Your task to perform on an android device: allow cookies in the chrome app Image 0: 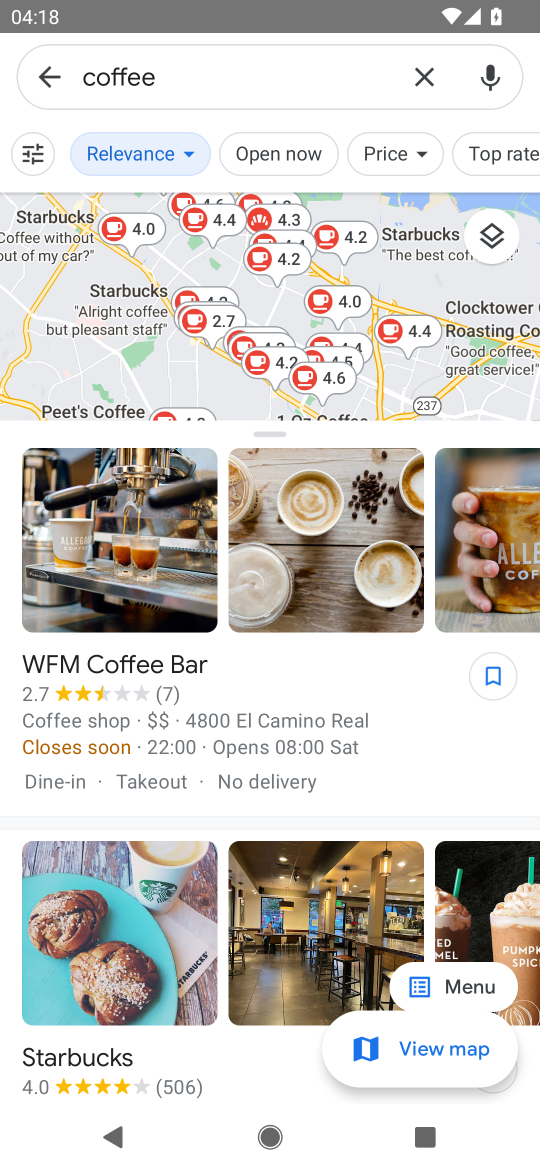
Step 0: press back button
Your task to perform on an android device: allow cookies in the chrome app Image 1: 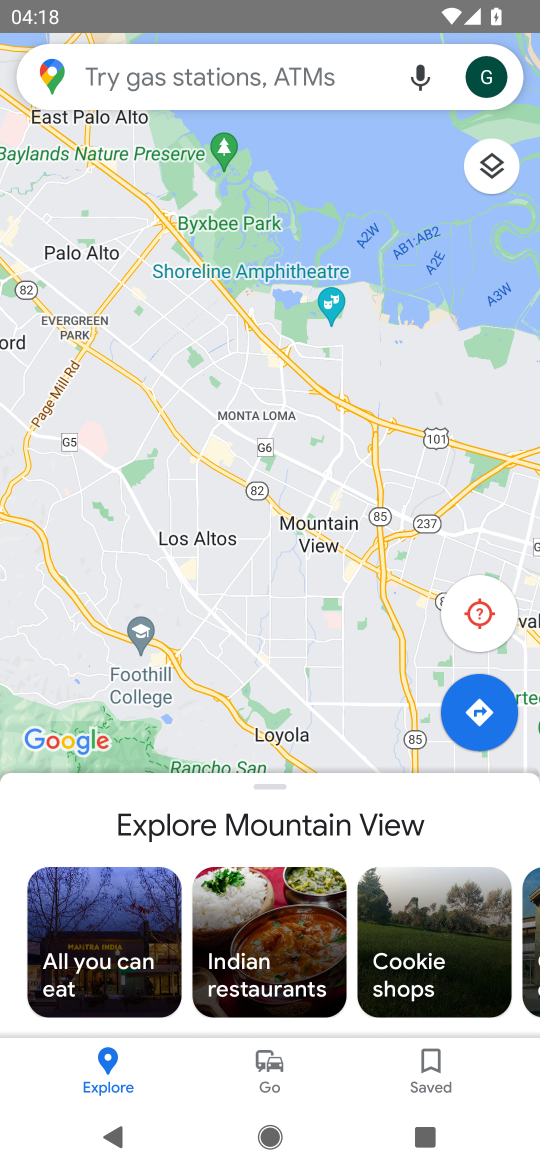
Step 1: press back button
Your task to perform on an android device: allow cookies in the chrome app Image 2: 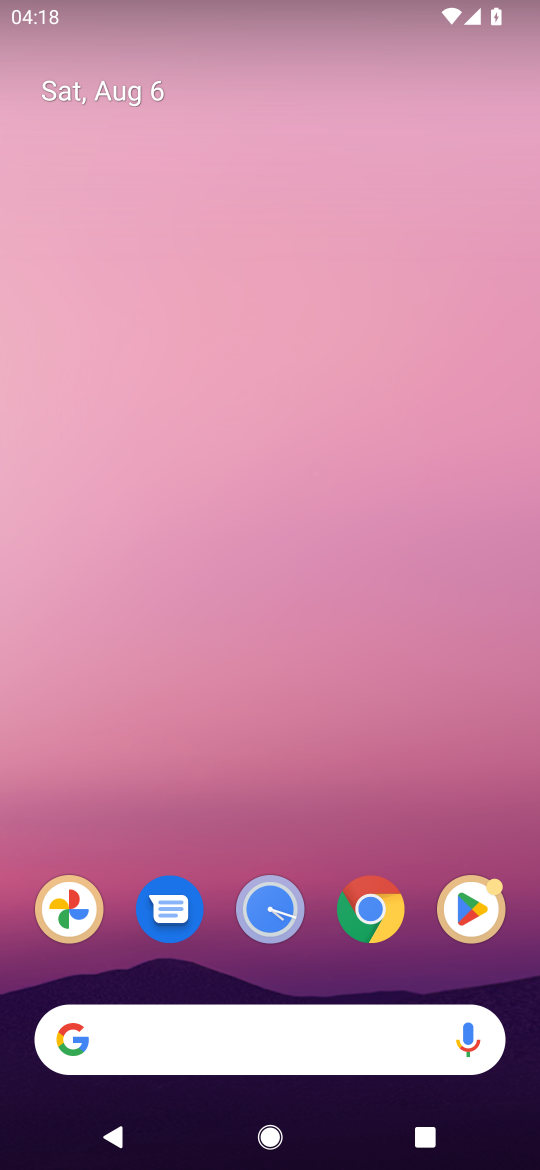
Step 2: click (369, 893)
Your task to perform on an android device: allow cookies in the chrome app Image 3: 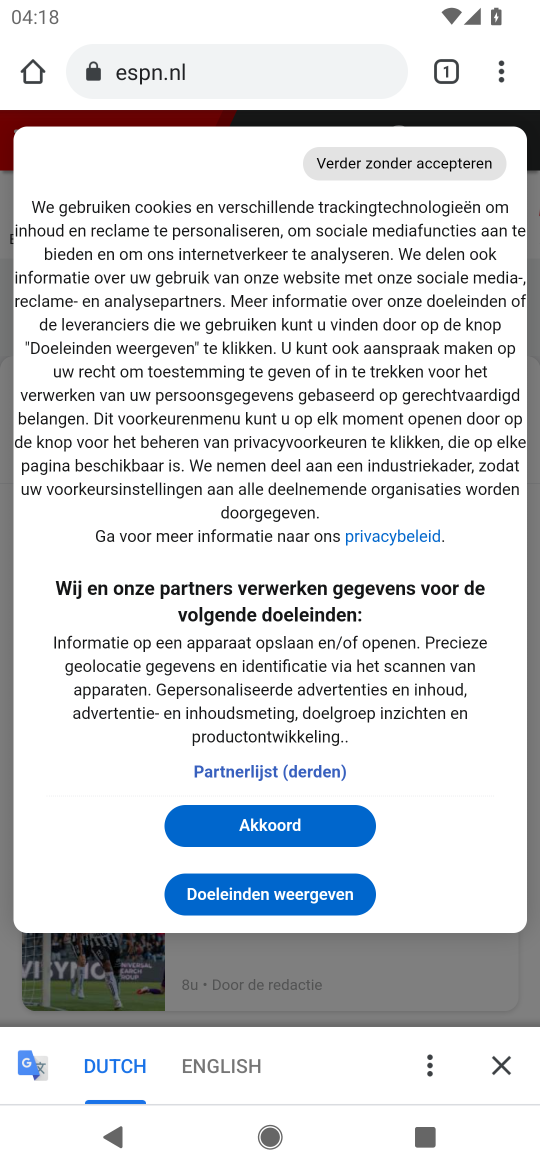
Step 3: drag from (500, 71) to (288, 895)
Your task to perform on an android device: allow cookies in the chrome app Image 4: 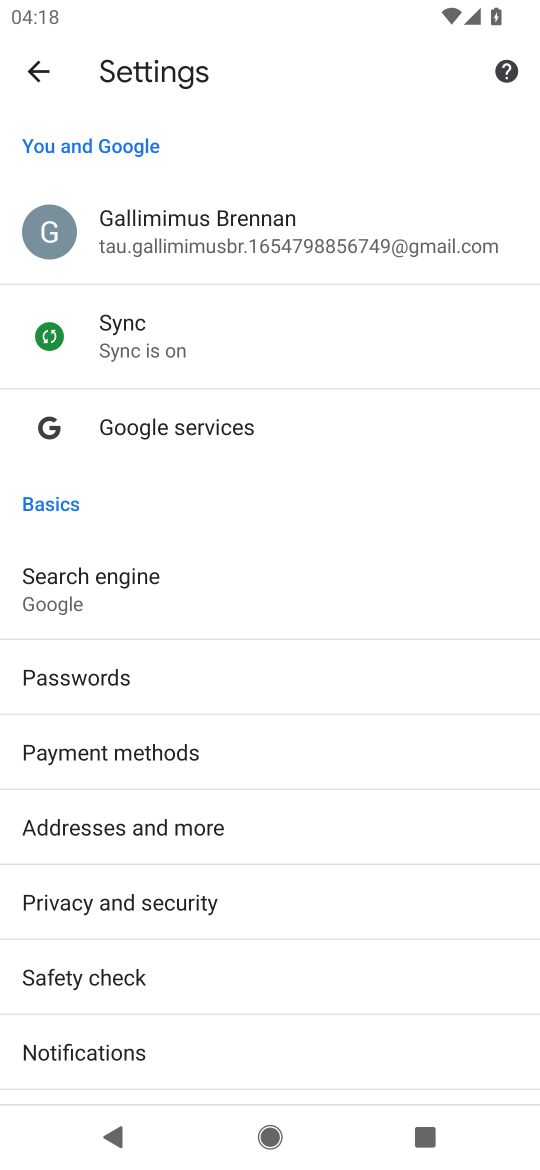
Step 4: drag from (177, 1000) to (404, 147)
Your task to perform on an android device: allow cookies in the chrome app Image 5: 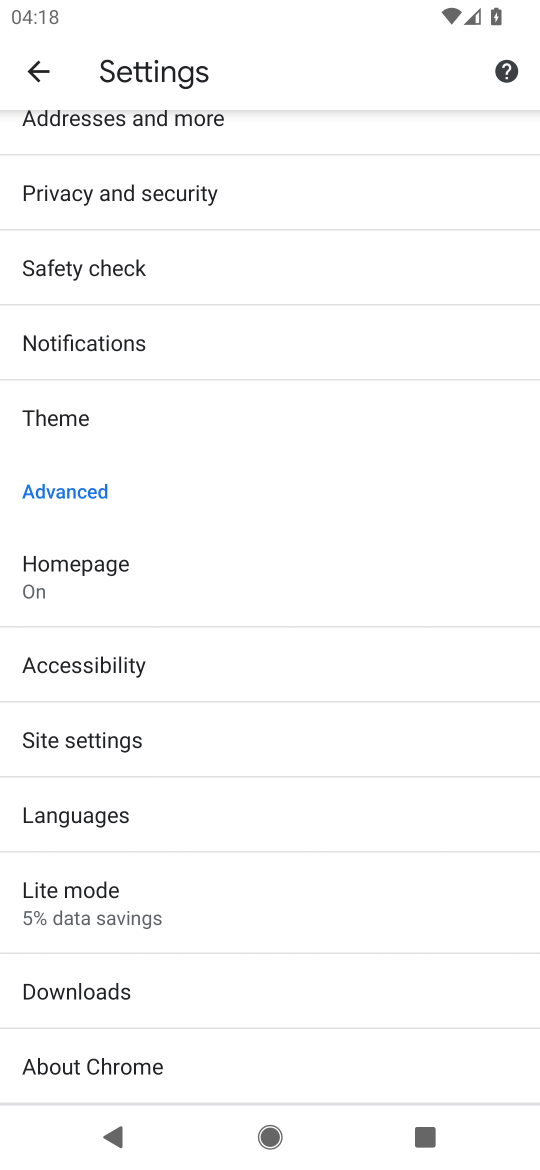
Step 5: click (174, 736)
Your task to perform on an android device: allow cookies in the chrome app Image 6: 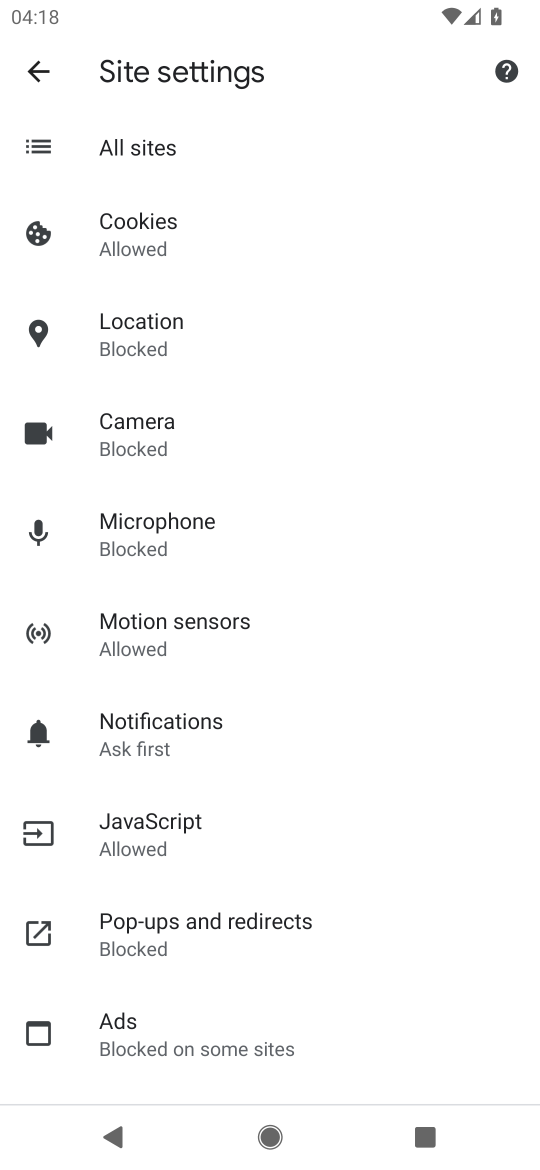
Step 6: click (164, 223)
Your task to perform on an android device: allow cookies in the chrome app Image 7: 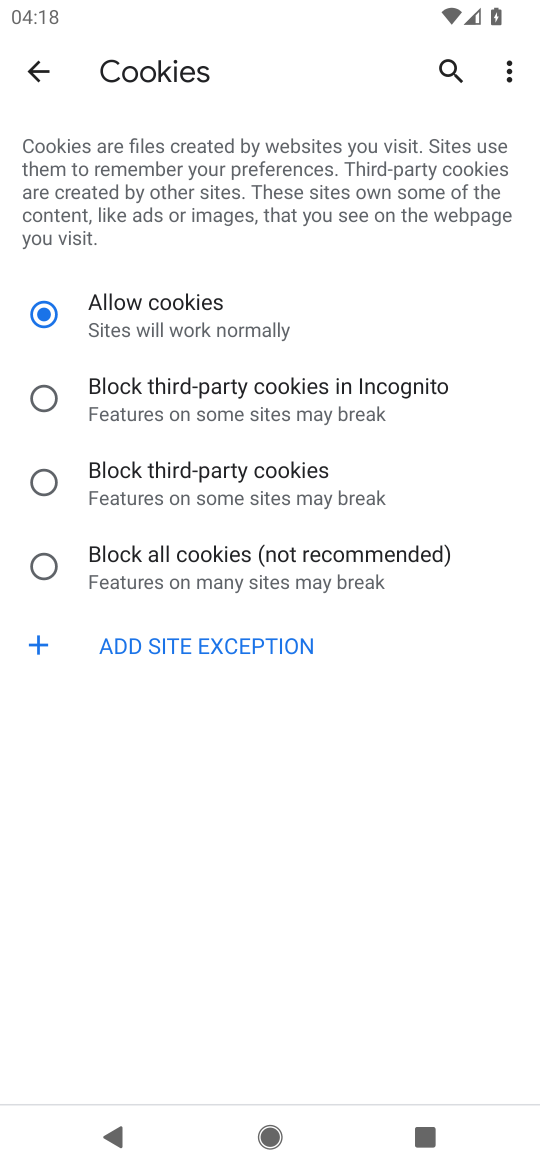
Step 7: task complete